Your task to perform on an android device: delete location history Image 0: 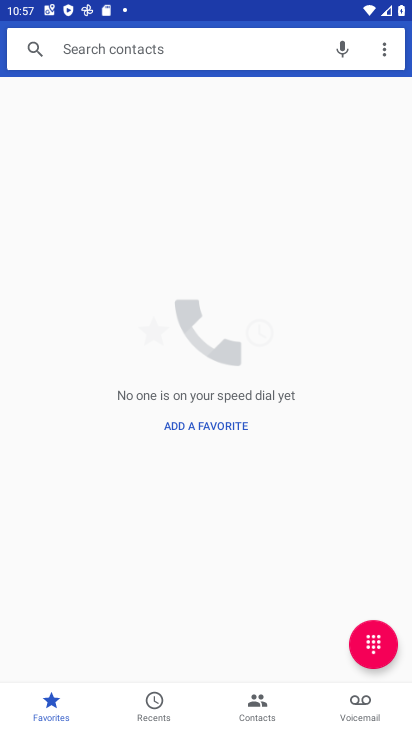
Step 0: press home button
Your task to perform on an android device: delete location history Image 1: 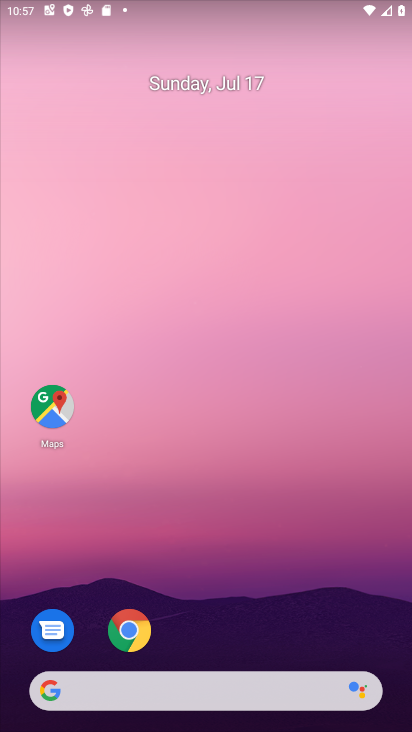
Step 1: drag from (319, 653) to (275, 4)
Your task to perform on an android device: delete location history Image 2: 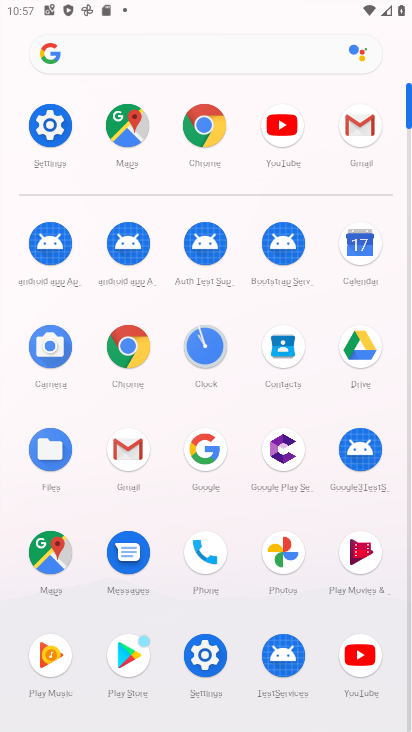
Step 2: click (203, 649)
Your task to perform on an android device: delete location history Image 3: 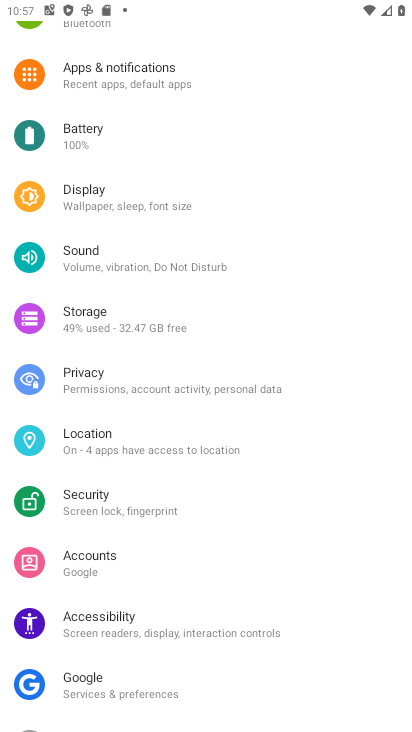
Step 3: click (166, 460)
Your task to perform on an android device: delete location history Image 4: 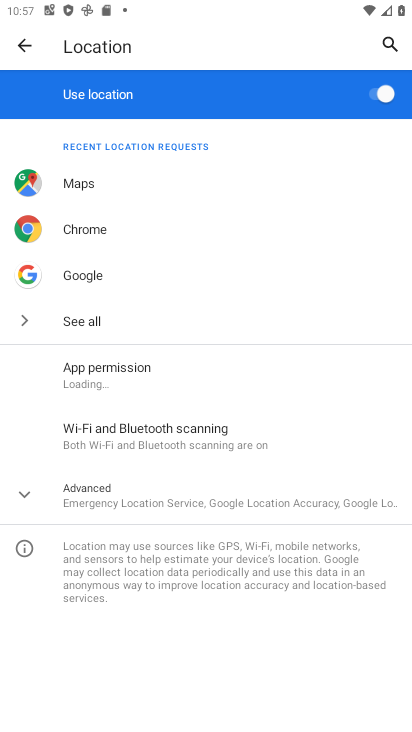
Step 4: task complete